Your task to perform on an android device: remove spam from my inbox in the gmail app Image 0: 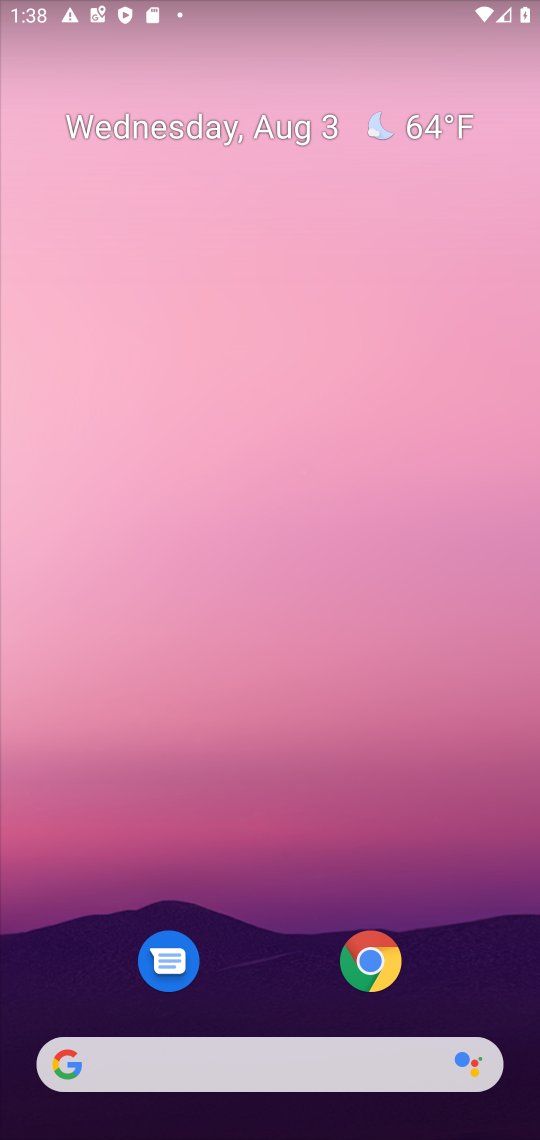
Step 0: drag from (284, 777) to (275, 115)
Your task to perform on an android device: remove spam from my inbox in the gmail app Image 1: 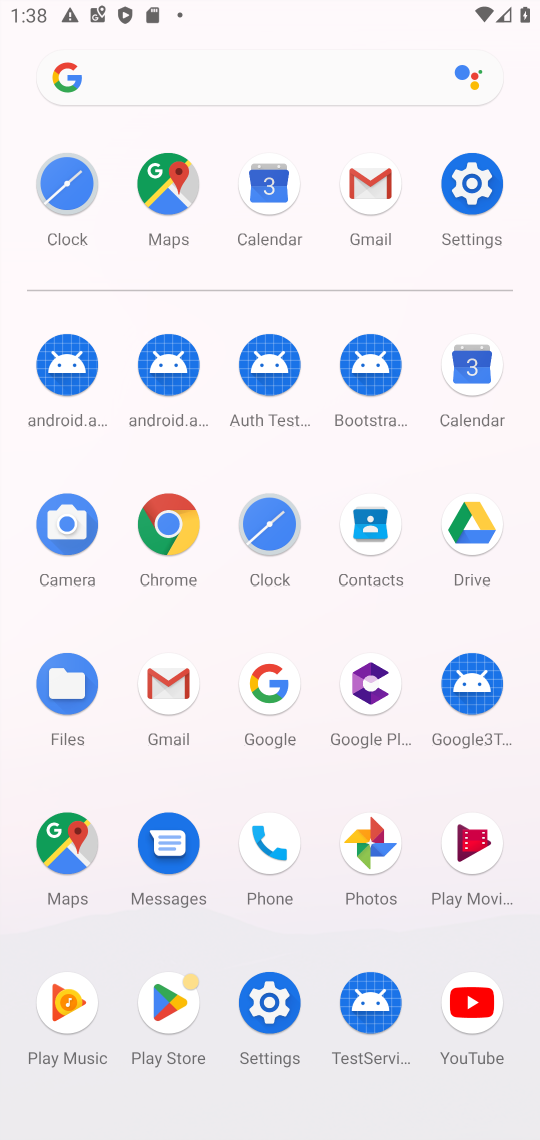
Step 1: click (362, 193)
Your task to perform on an android device: remove spam from my inbox in the gmail app Image 2: 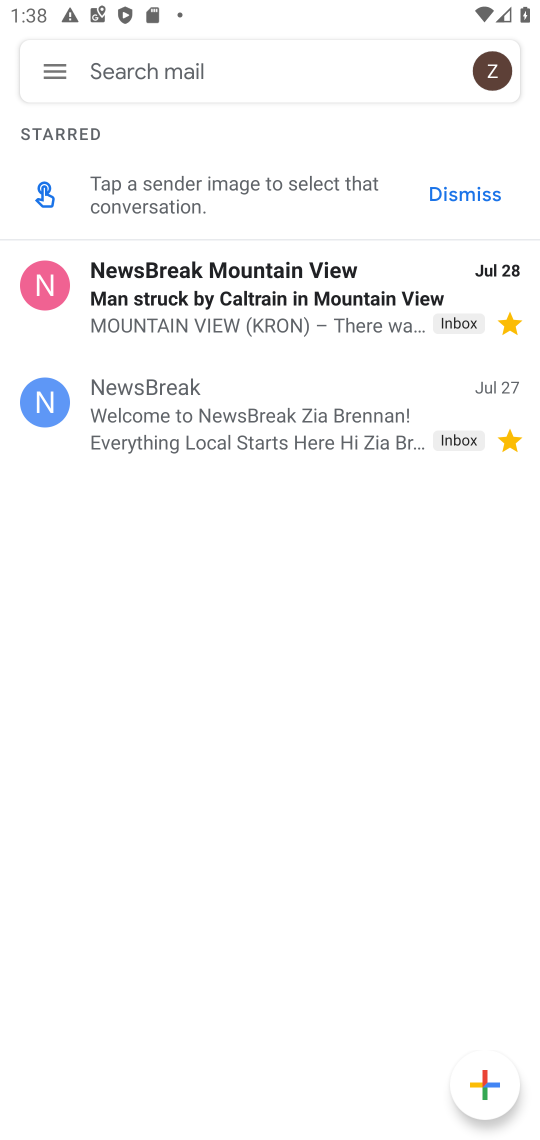
Step 2: click (46, 71)
Your task to perform on an android device: remove spam from my inbox in the gmail app Image 3: 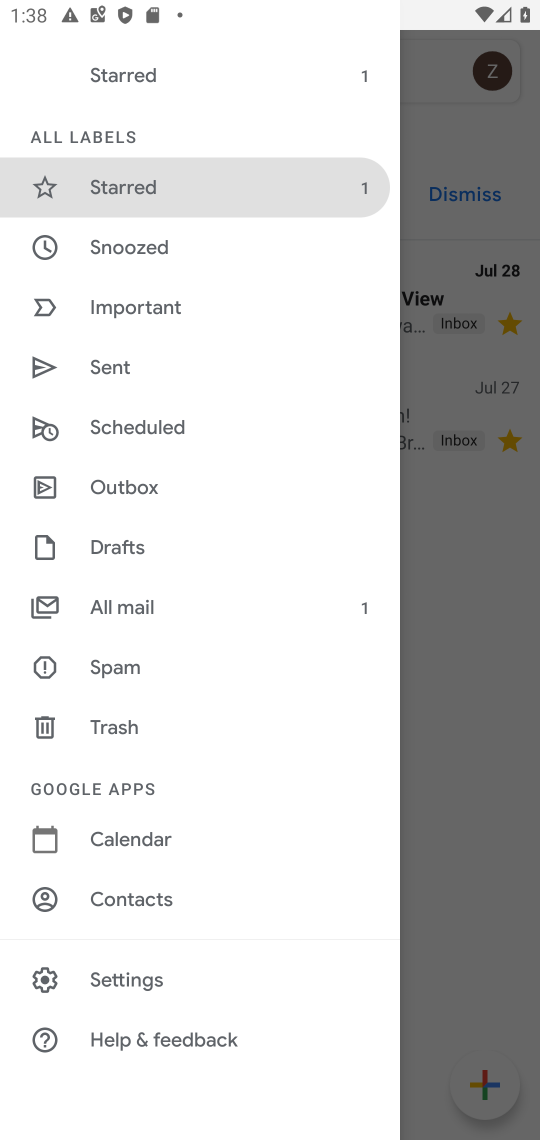
Step 3: click (98, 672)
Your task to perform on an android device: remove spam from my inbox in the gmail app Image 4: 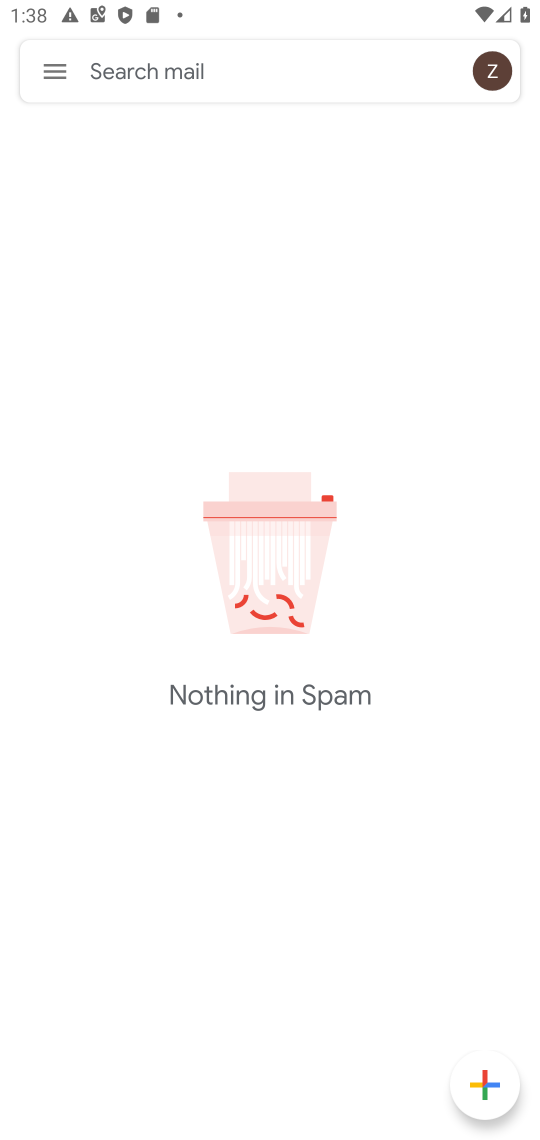
Step 4: task complete